Your task to perform on an android device: turn off wifi Image 0: 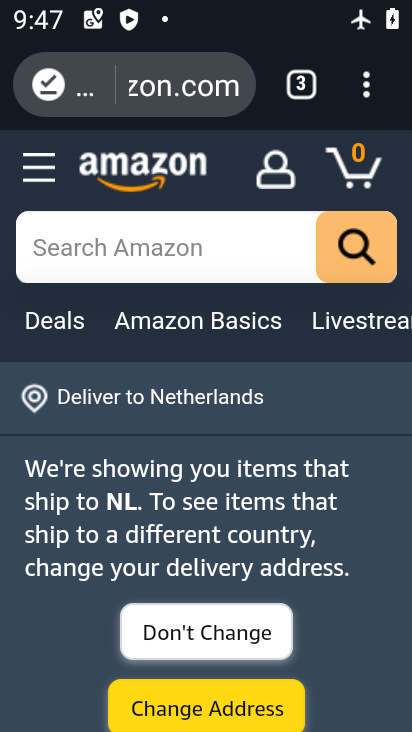
Step 0: press home button
Your task to perform on an android device: turn off wifi Image 1: 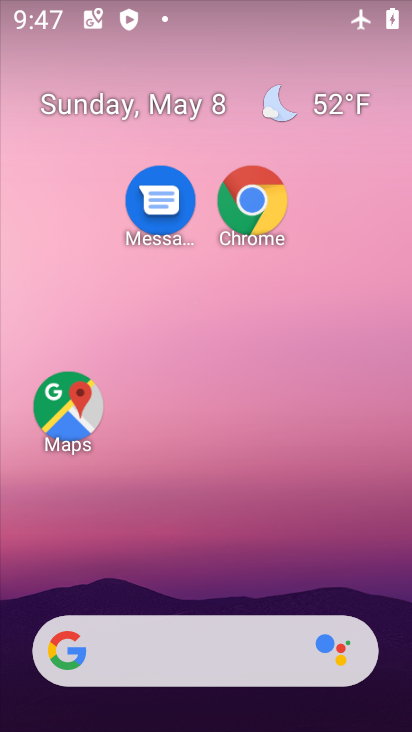
Step 1: drag from (190, 606) to (243, 23)
Your task to perform on an android device: turn off wifi Image 2: 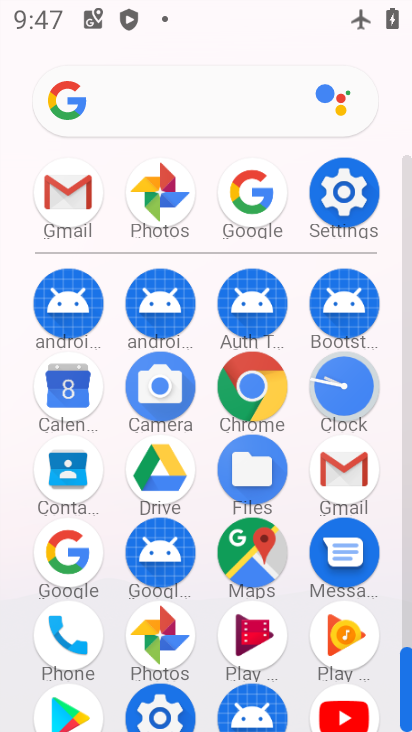
Step 2: click (349, 209)
Your task to perform on an android device: turn off wifi Image 3: 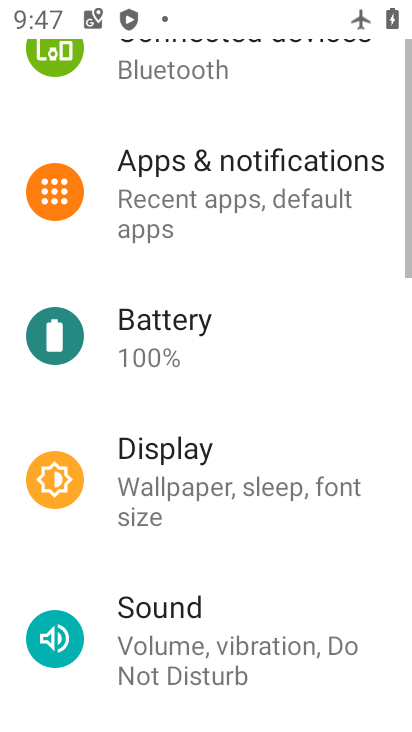
Step 3: drag from (184, 143) to (145, 632)
Your task to perform on an android device: turn off wifi Image 4: 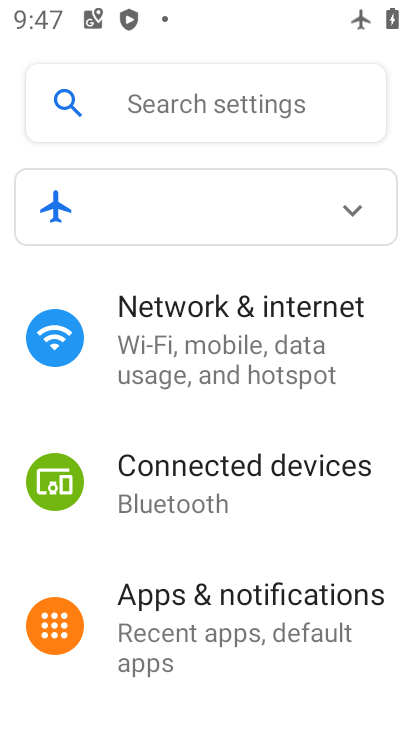
Step 4: click (172, 301)
Your task to perform on an android device: turn off wifi Image 5: 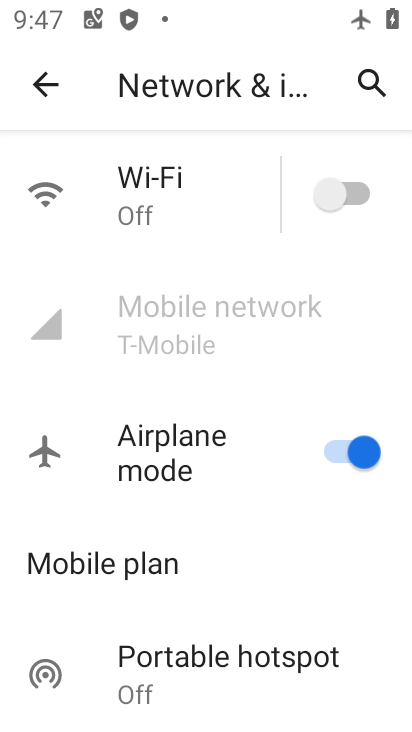
Step 5: task complete